Your task to perform on an android device: Open notification settings Image 0: 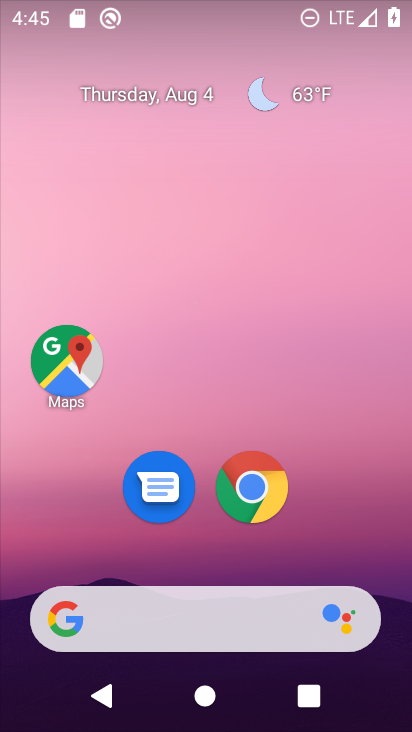
Step 0: drag from (205, 581) to (202, 22)
Your task to perform on an android device: Open notification settings Image 1: 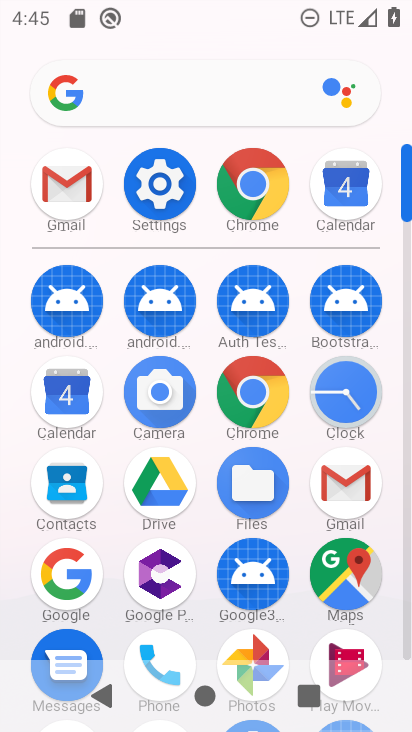
Step 1: click (160, 187)
Your task to perform on an android device: Open notification settings Image 2: 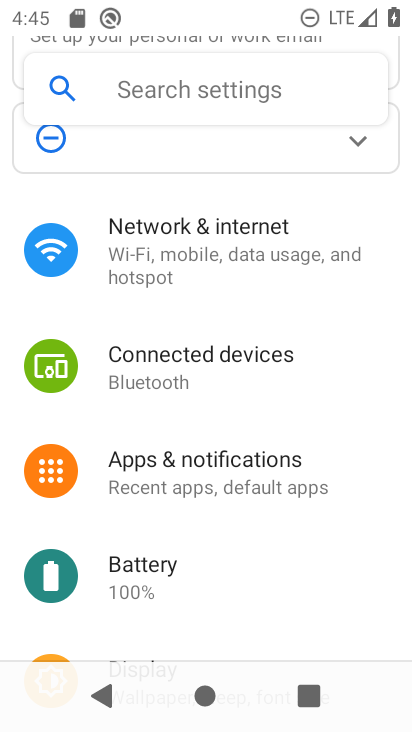
Step 2: click (254, 459)
Your task to perform on an android device: Open notification settings Image 3: 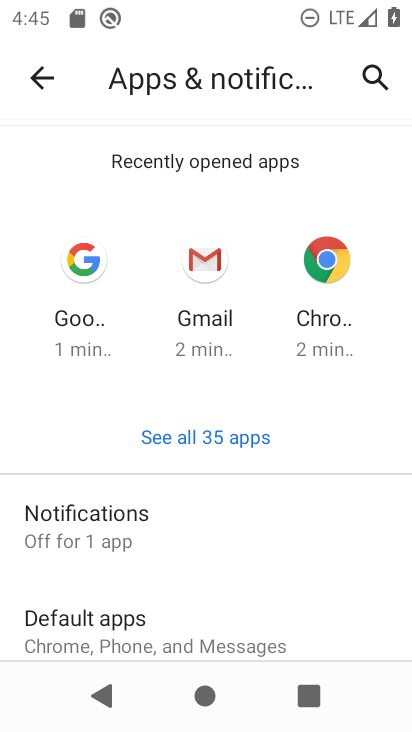
Step 3: task complete